Your task to perform on an android device: open a bookmark in the chrome app Image 0: 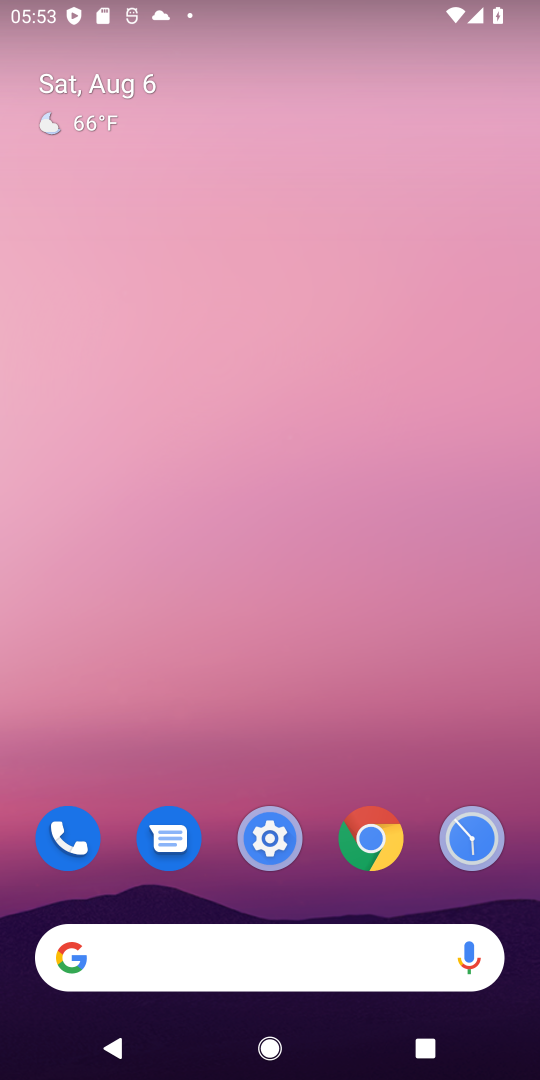
Step 0: drag from (226, 628) to (332, 68)
Your task to perform on an android device: open a bookmark in the chrome app Image 1: 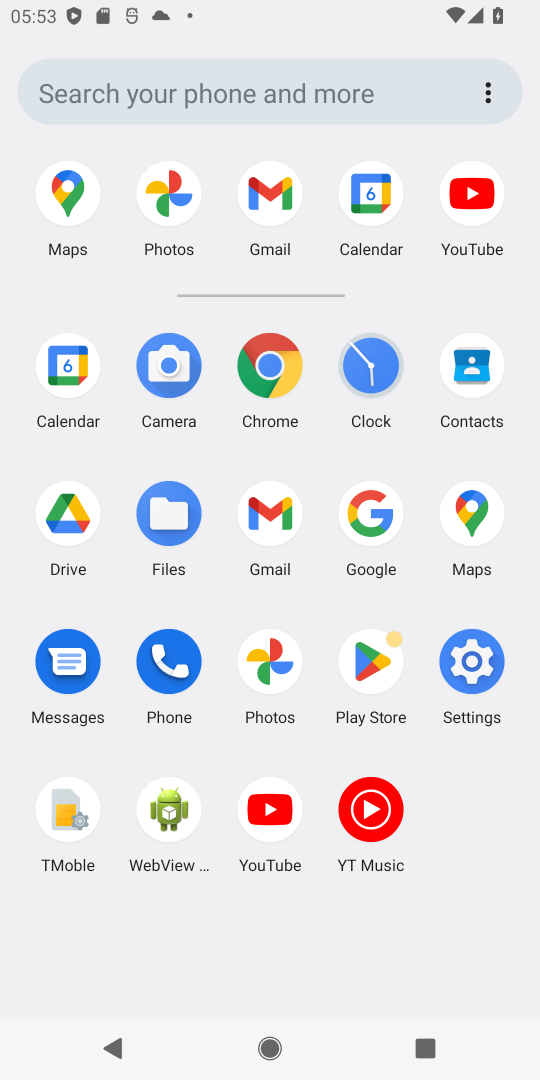
Step 1: click (267, 382)
Your task to perform on an android device: open a bookmark in the chrome app Image 2: 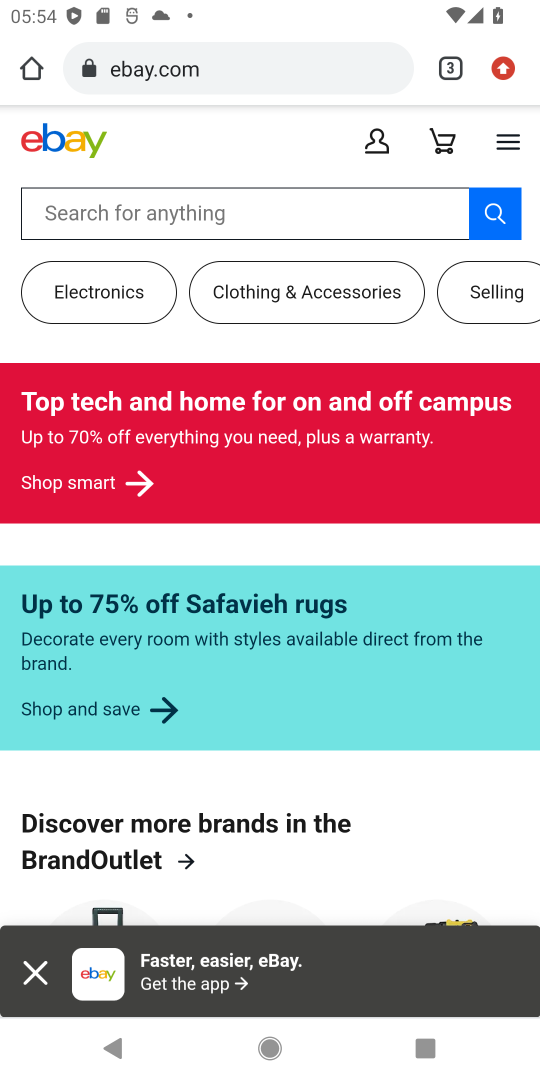
Step 2: click (503, 71)
Your task to perform on an android device: open a bookmark in the chrome app Image 3: 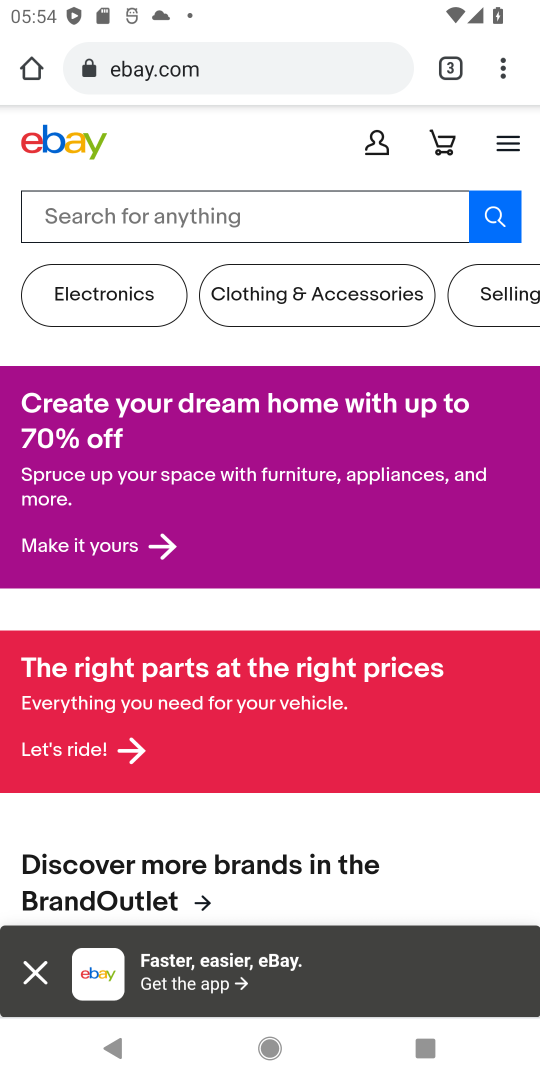
Step 3: click (499, 72)
Your task to perform on an android device: open a bookmark in the chrome app Image 4: 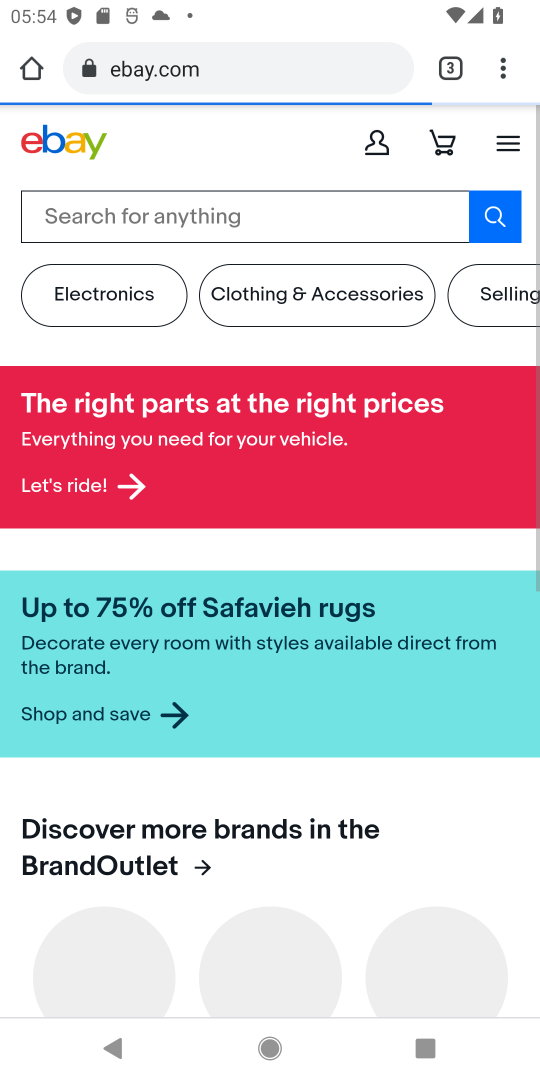
Step 4: click (502, 76)
Your task to perform on an android device: open a bookmark in the chrome app Image 5: 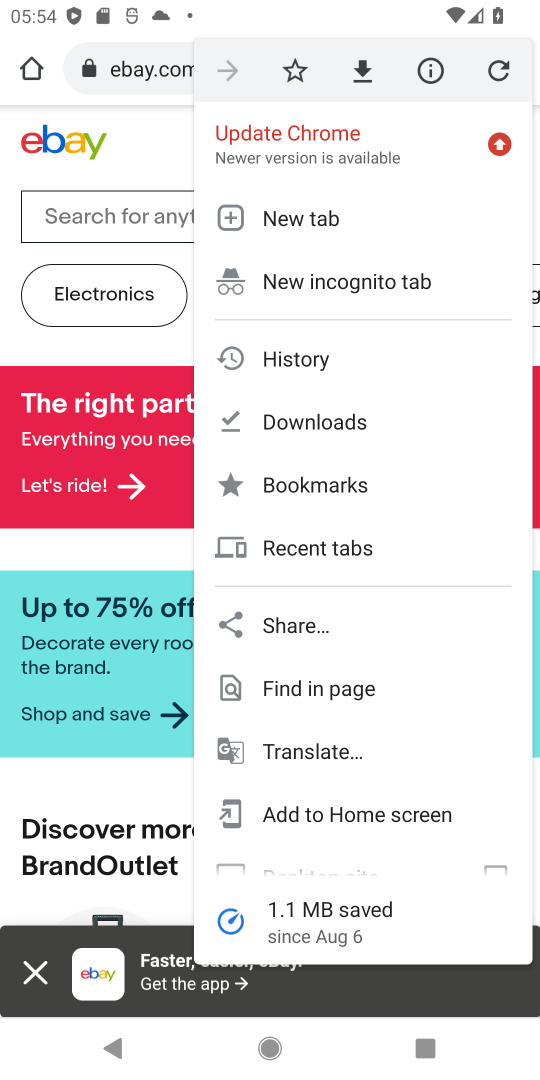
Step 5: click (336, 490)
Your task to perform on an android device: open a bookmark in the chrome app Image 6: 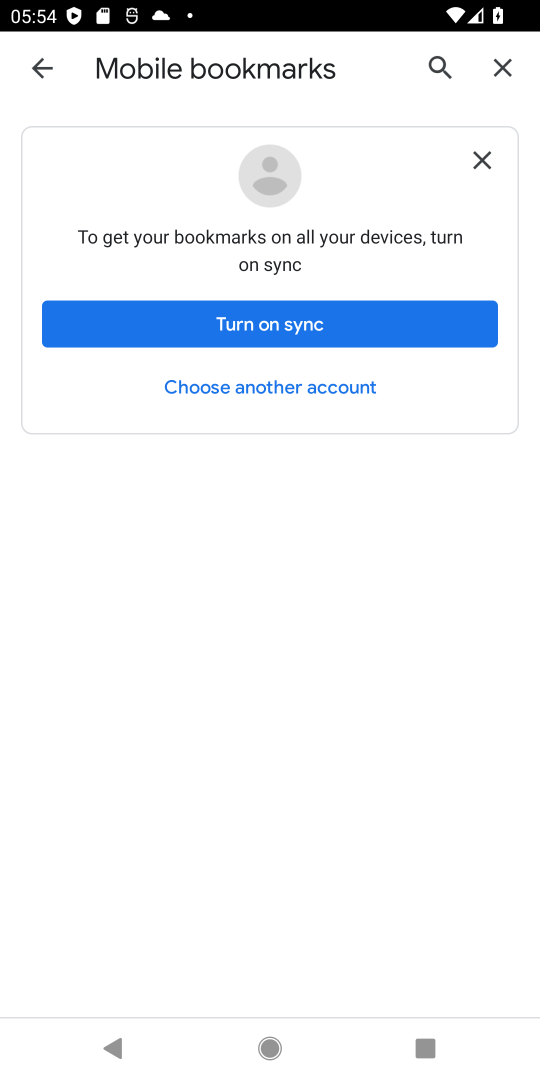
Step 6: click (380, 344)
Your task to perform on an android device: open a bookmark in the chrome app Image 7: 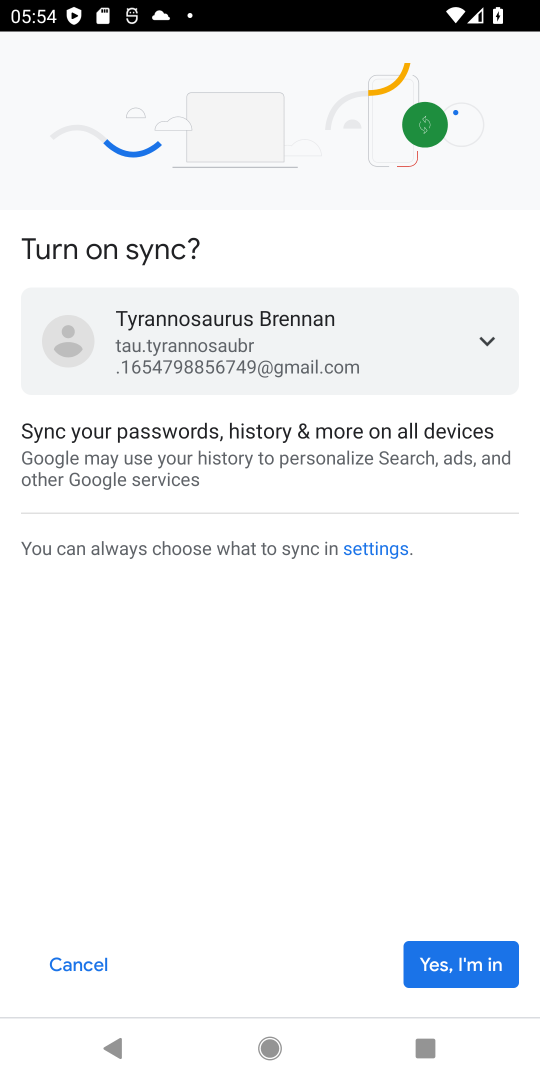
Step 7: click (452, 944)
Your task to perform on an android device: open a bookmark in the chrome app Image 8: 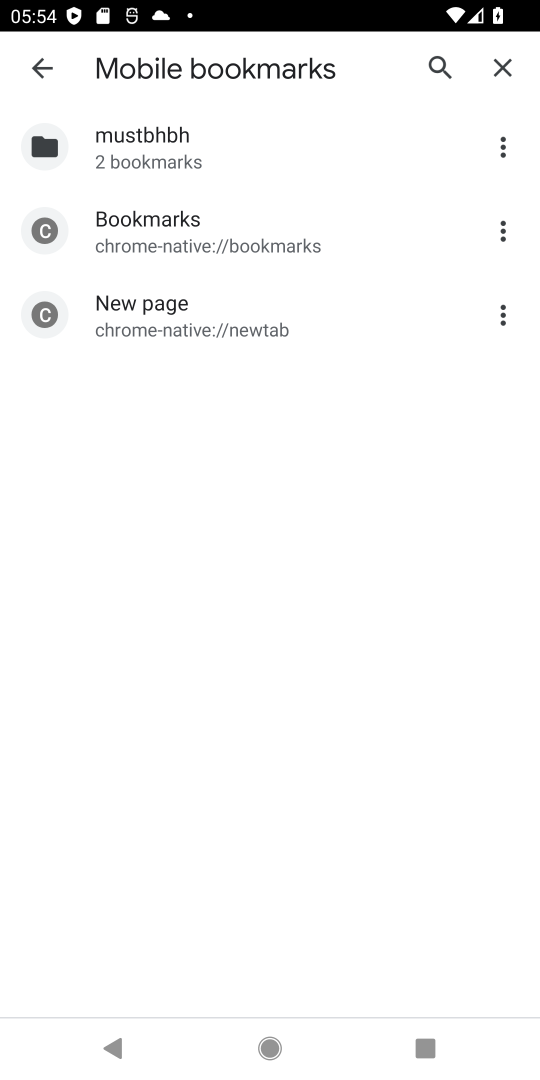
Step 8: click (131, 229)
Your task to perform on an android device: open a bookmark in the chrome app Image 9: 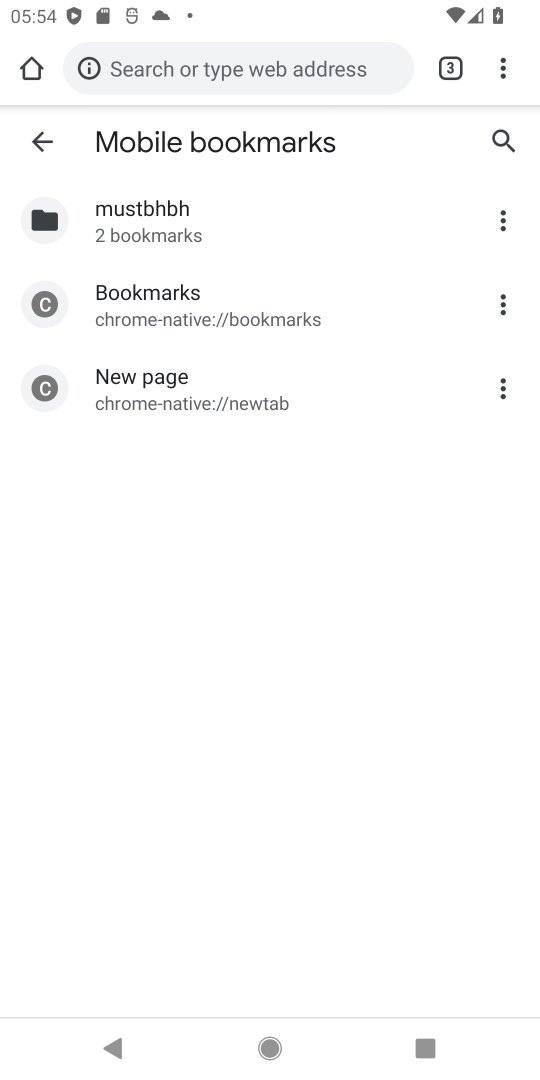
Step 9: click (251, 411)
Your task to perform on an android device: open a bookmark in the chrome app Image 10: 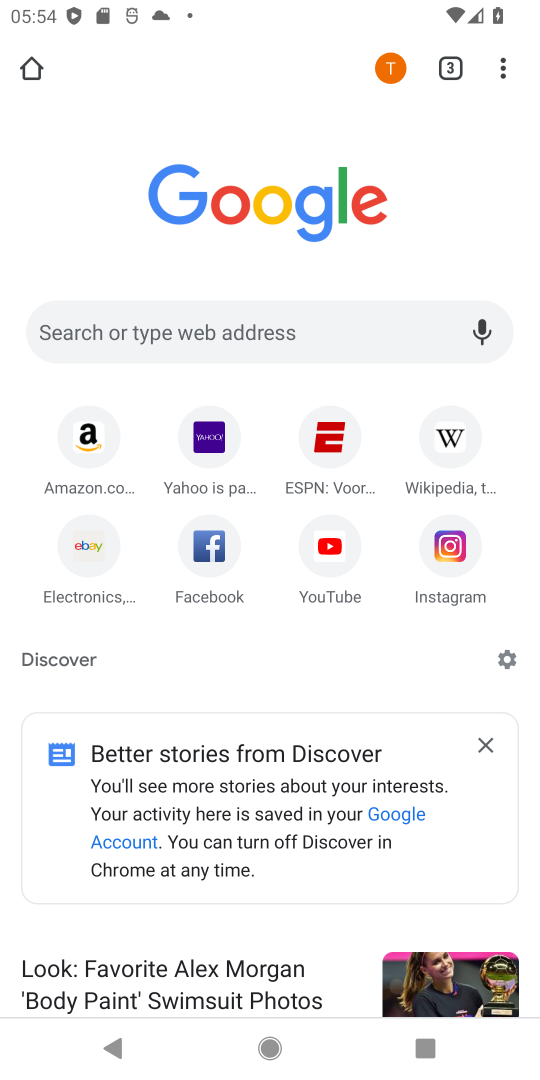
Step 10: task complete